Your task to perform on an android device: turn off priority inbox in the gmail app Image 0: 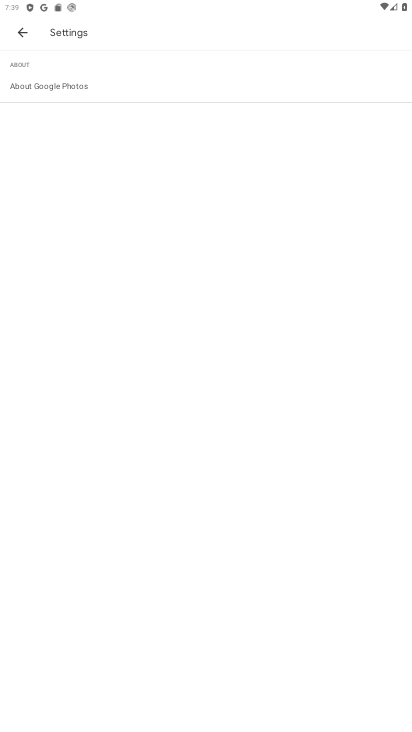
Step 0: press home button
Your task to perform on an android device: turn off priority inbox in the gmail app Image 1: 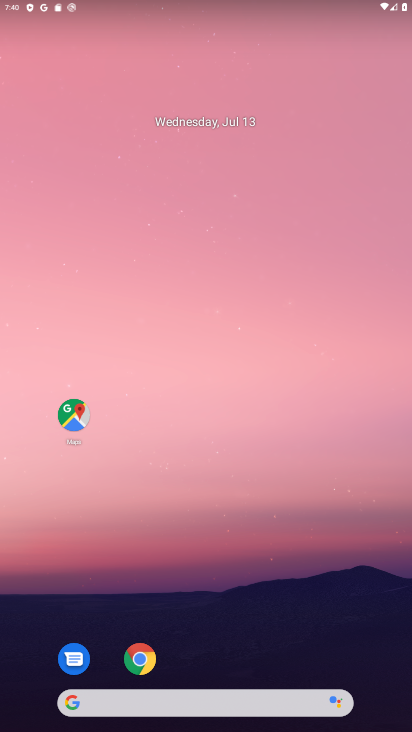
Step 1: drag from (298, 624) to (287, 148)
Your task to perform on an android device: turn off priority inbox in the gmail app Image 2: 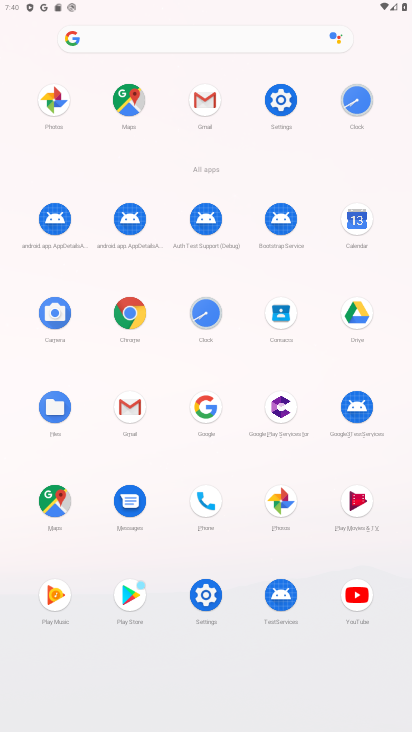
Step 2: click (199, 118)
Your task to perform on an android device: turn off priority inbox in the gmail app Image 3: 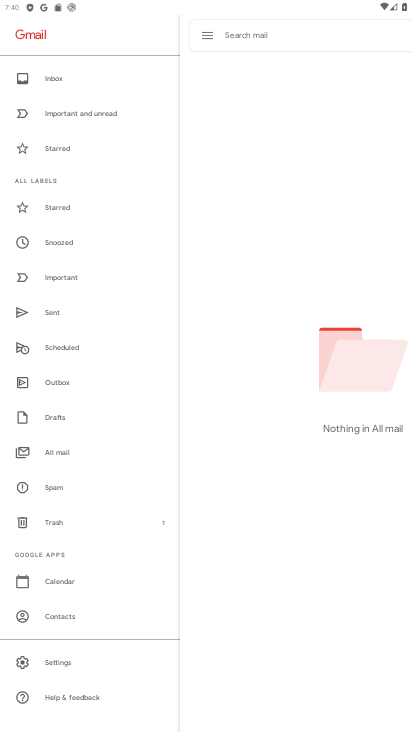
Step 3: click (57, 668)
Your task to perform on an android device: turn off priority inbox in the gmail app Image 4: 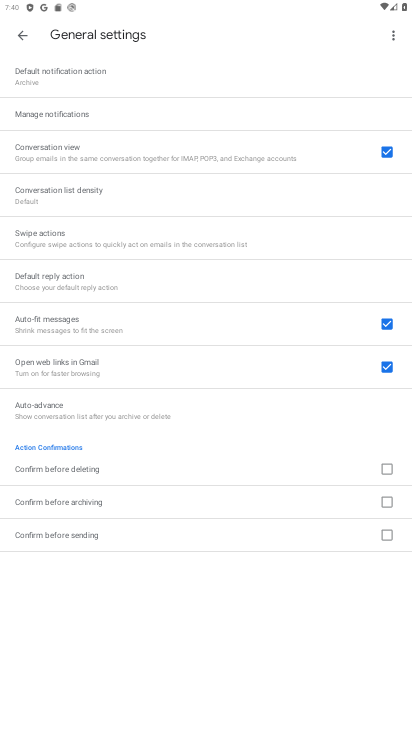
Step 4: task complete